Your task to perform on an android device: open app "Spotify" (install if not already installed), go to login, and select forgot password Image 0: 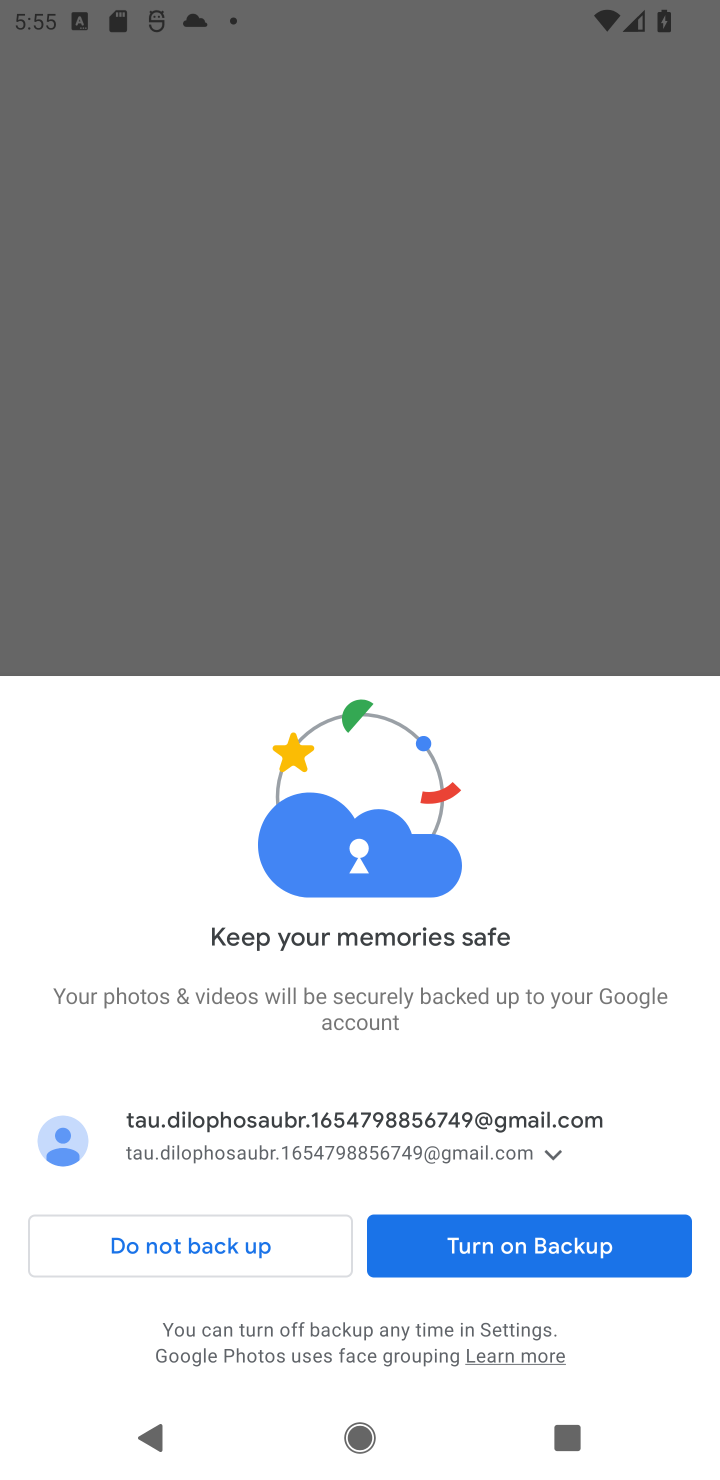
Step 0: press home button
Your task to perform on an android device: open app "Spotify" (install if not already installed), go to login, and select forgot password Image 1: 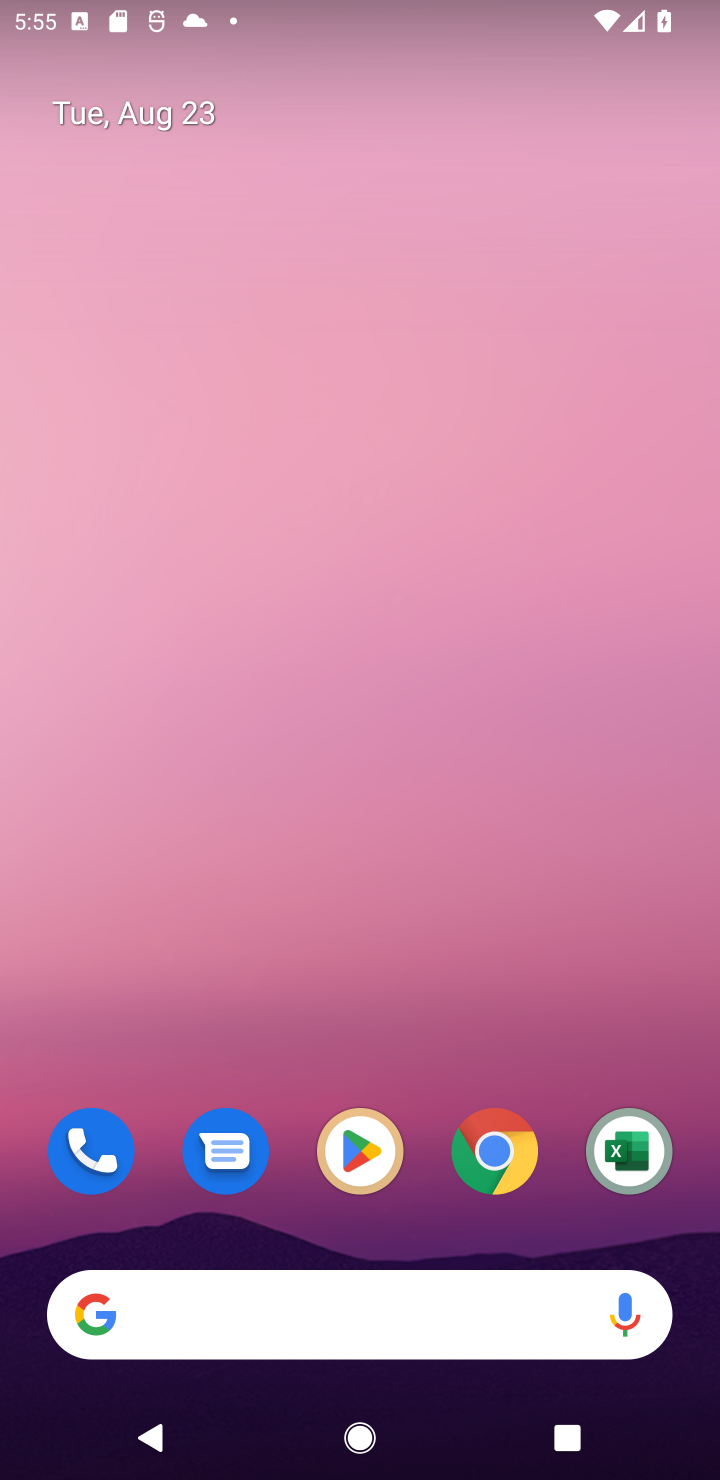
Step 1: click (364, 1161)
Your task to perform on an android device: open app "Spotify" (install if not already installed), go to login, and select forgot password Image 2: 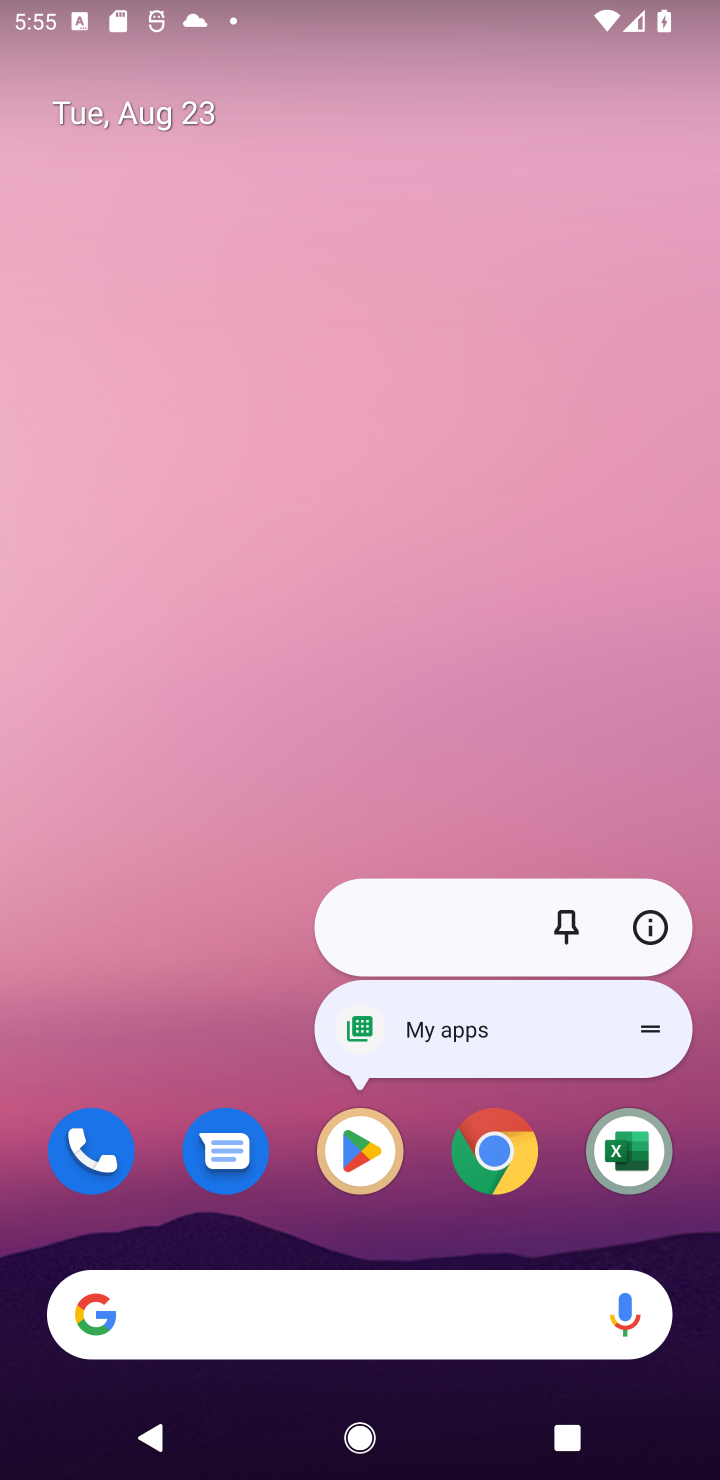
Step 2: click (364, 1169)
Your task to perform on an android device: open app "Spotify" (install if not already installed), go to login, and select forgot password Image 3: 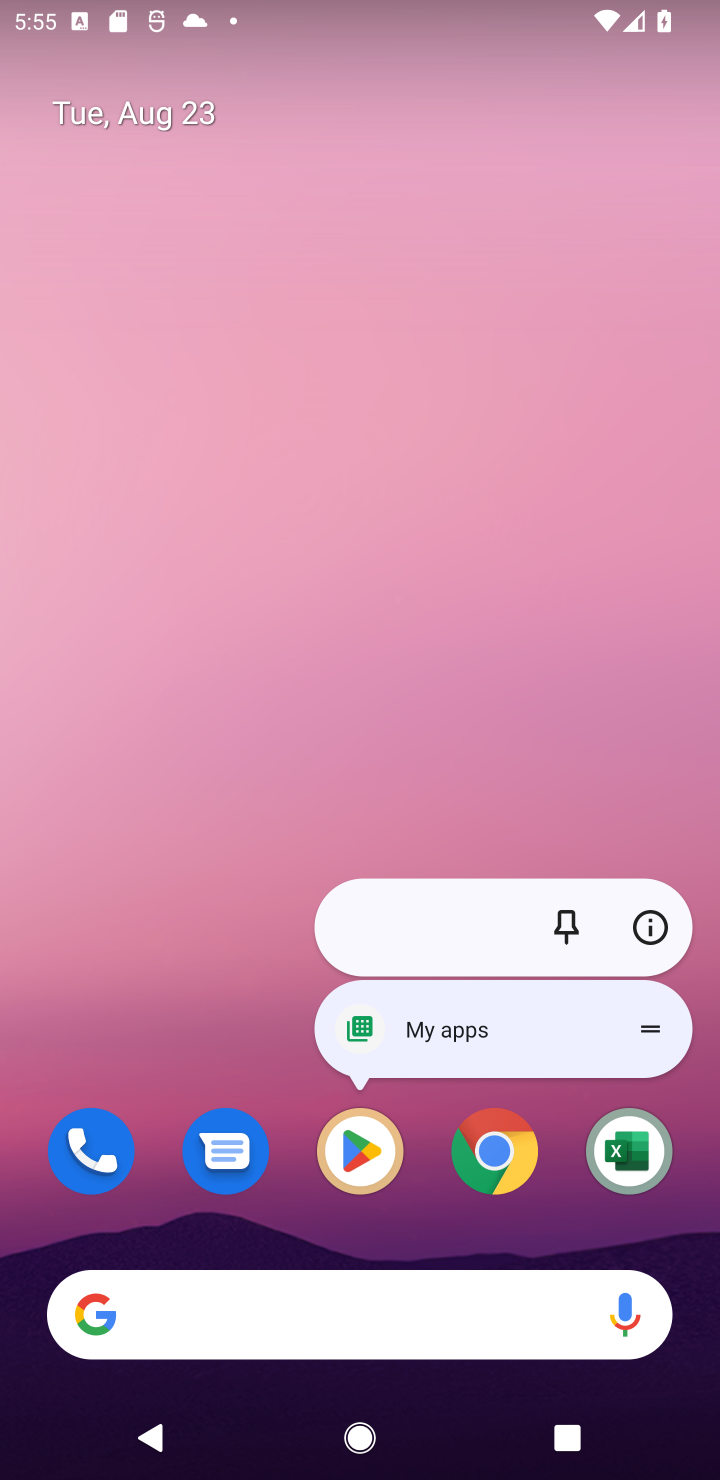
Step 3: click (355, 1169)
Your task to perform on an android device: open app "Spotify" (install if not already installed), go to login, and select forgot password Image 4: 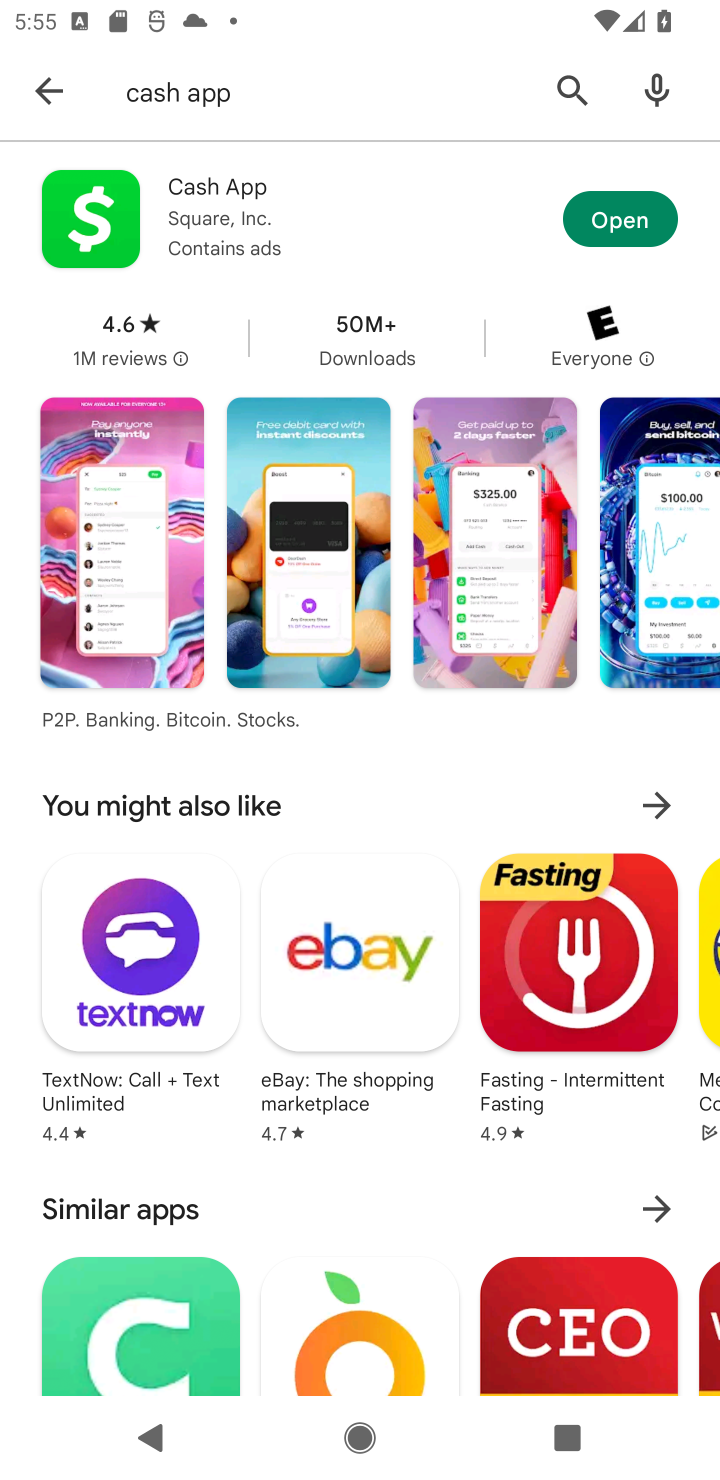
Step 4: click (569, 80)
Your task to perform on an android device: open app "Spotify" (install if not already installed), go to login, and select forgot password Image 5: 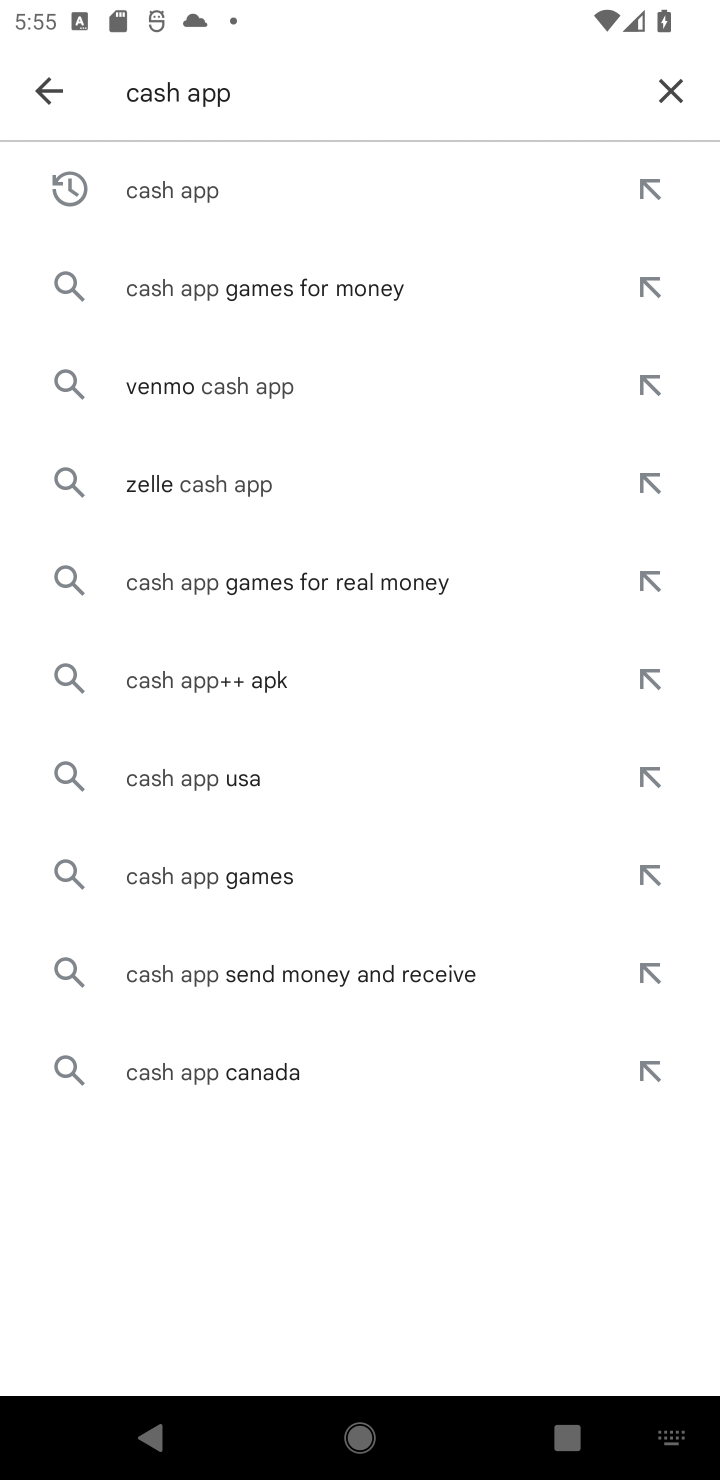
Step 5: click (672, 70)
Your task to perform on an android device: open app "Spotify" (install if not already installed), go to login, and select forgot password Image 6: 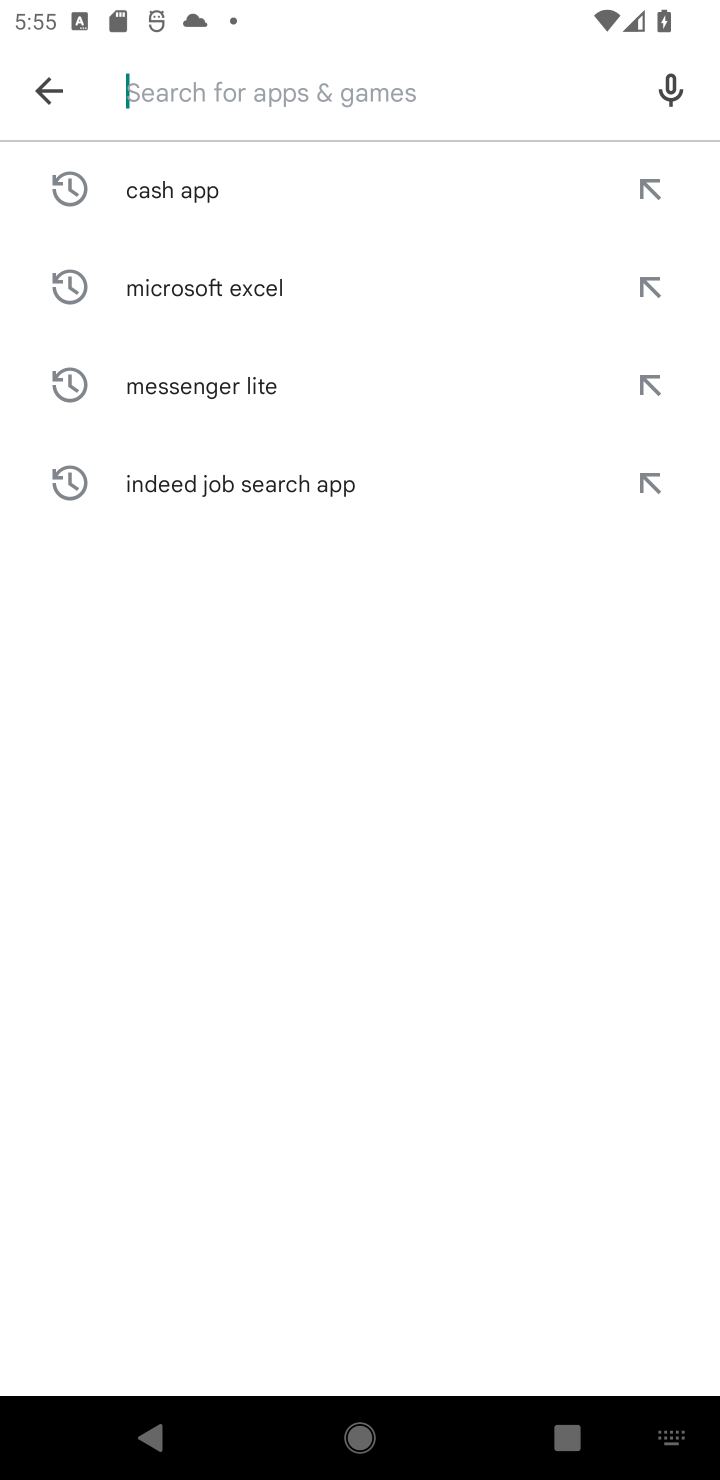
Step 6: type "Spotify"
Your task to perform on an android device: open app "Spotify" (install if not already installed), go to login, and select forgot password Image 7: 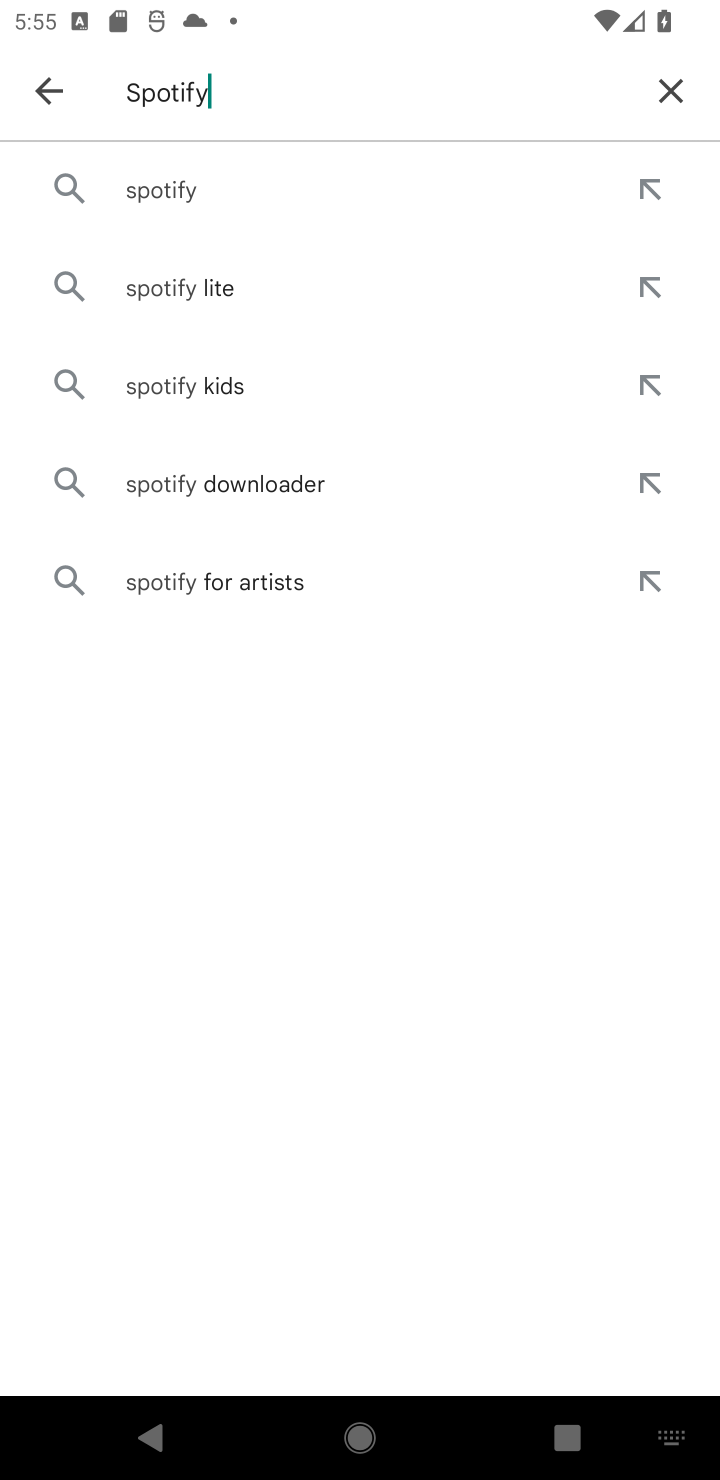
Step 7: click (170, 191)
Your task to perform on an android device: open app "Spotify" (install if not already installed), go to login, and select forgot password Image 8: 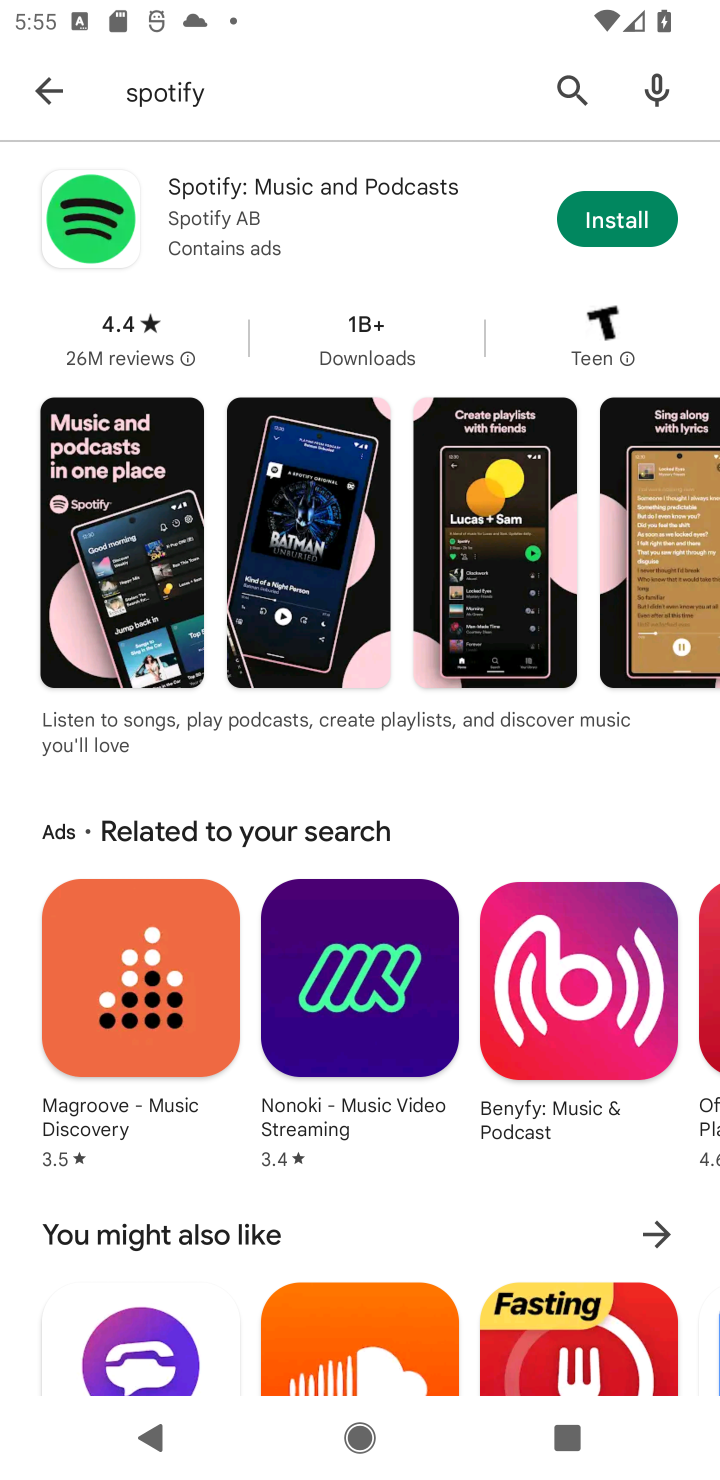
Step 8: click (628, 224)
Your task to perform on an android device: open app "Spotify" (install if not already installed), go to login, and select forgot password Image 9: 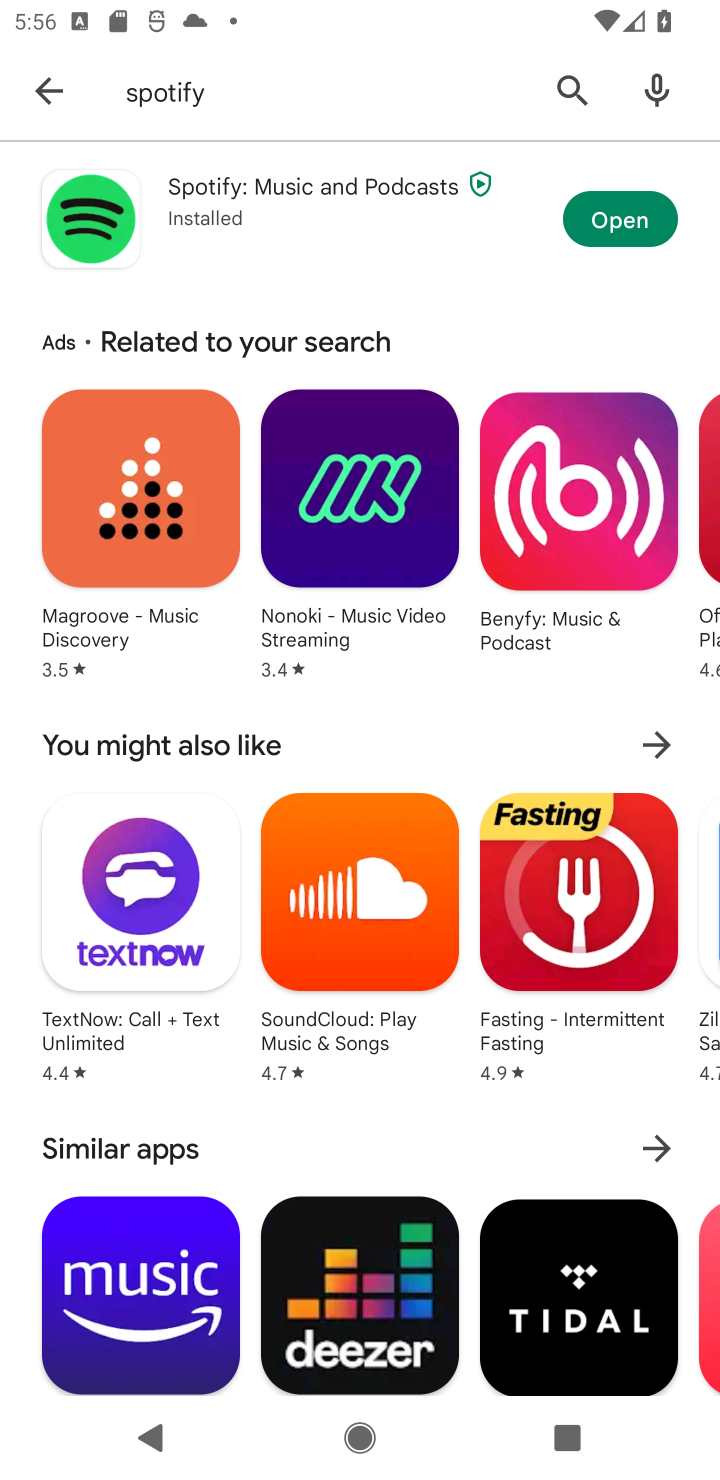
Step 9: click (626, 226)
Your task to perform on an android device: open app "Spotify" (install if not already installed), go to login, and select forgot password Image 10: 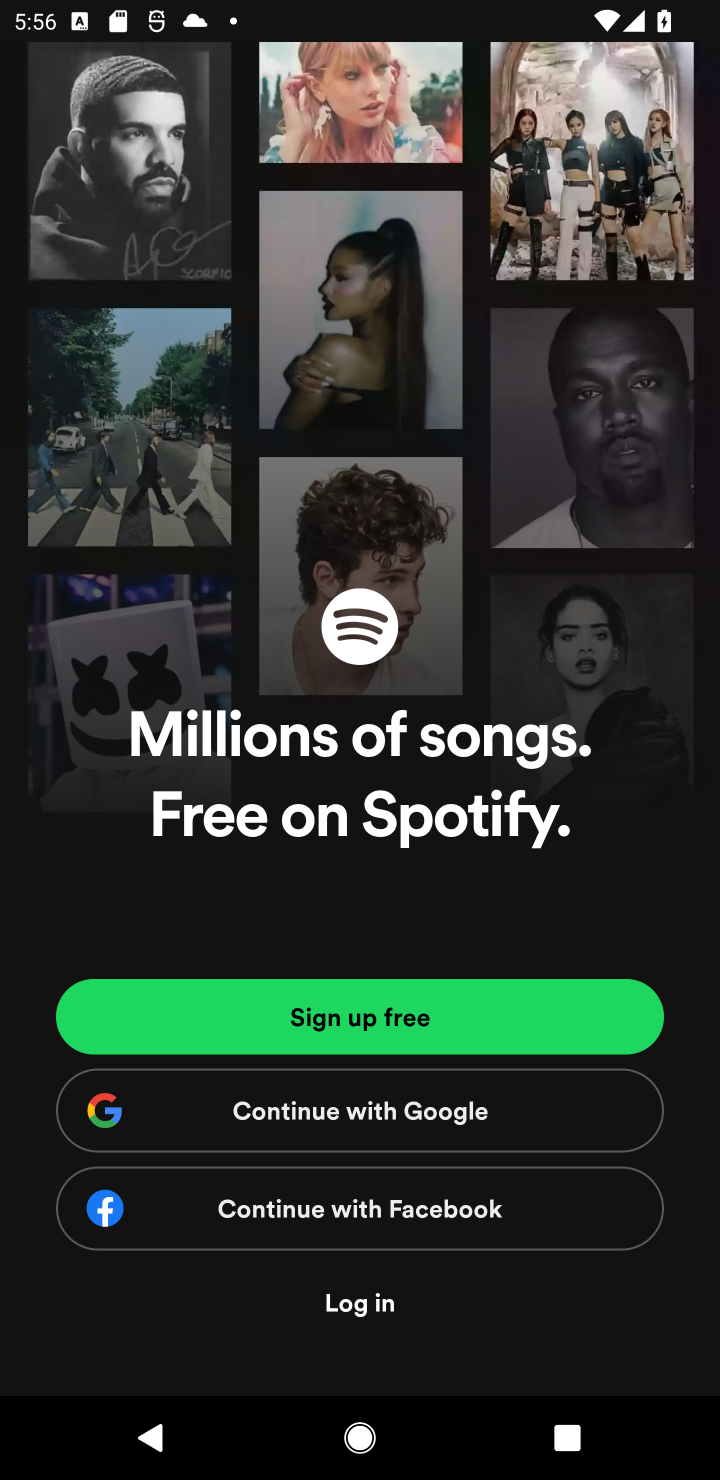
Step 10: click (366, 1311)
Your task to perform on an android device: open app "Spotify" (install if not already installed), go to login, and select forgot password Image 11: 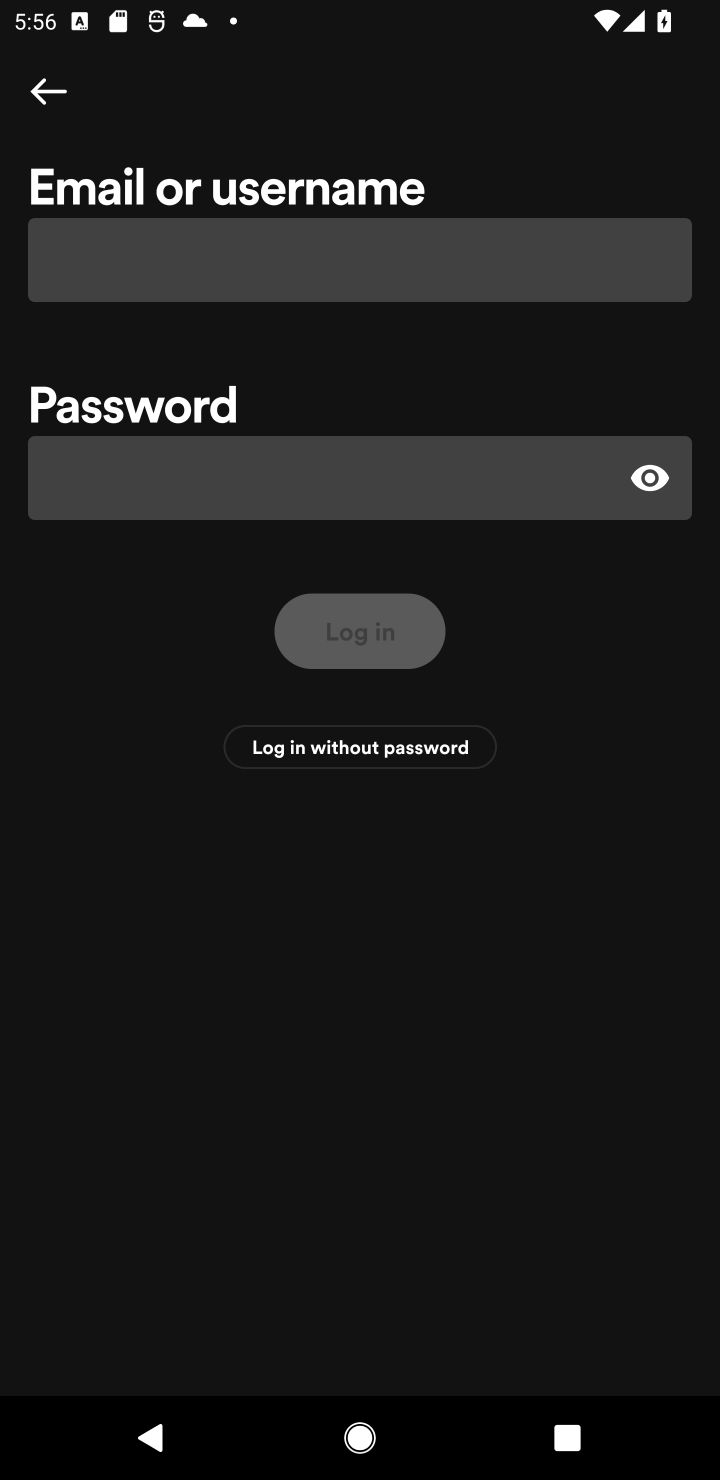
Step 11: task complete